Your task to perform on an android device: toggle airplane mode Image 0: 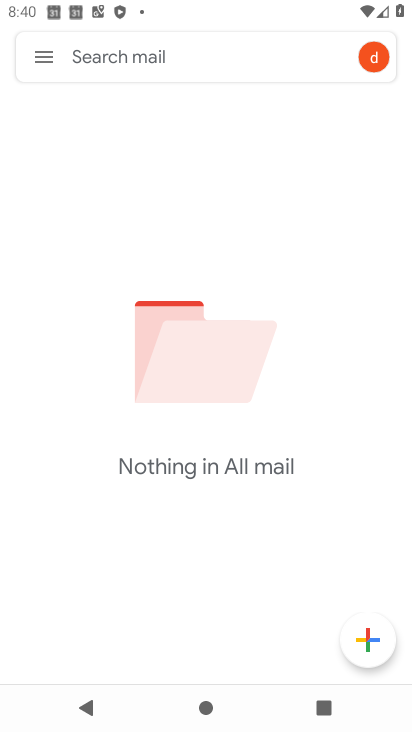
Step 0: press home button
Your task to perform on an android device: toggle airplane mode Image 1: 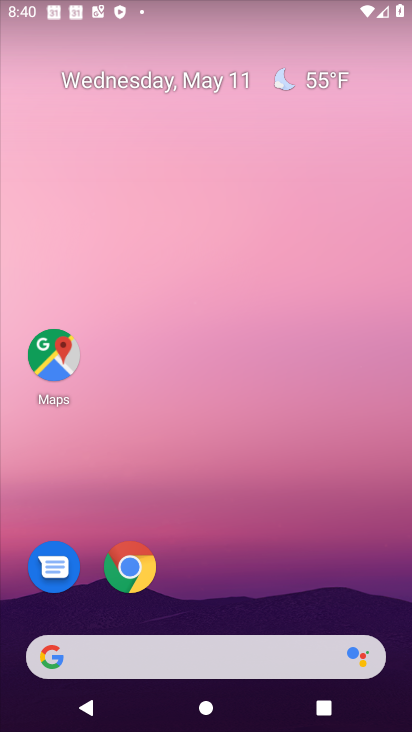
Step 1: drag from (230, 596) to (275, 117)
Your task to perform on an android device: toggle airplane mode Image 2: 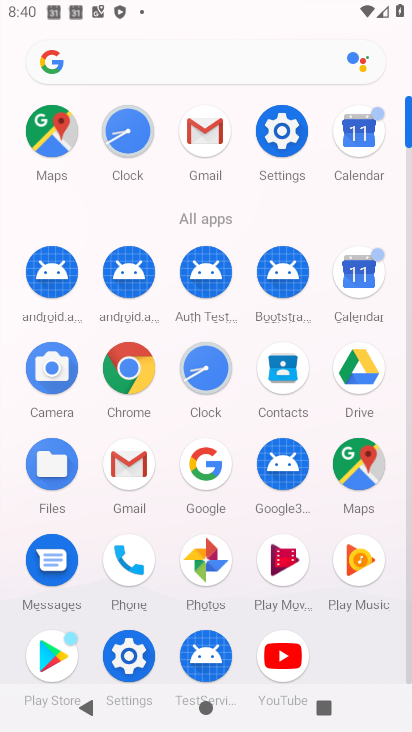
Step 2: click (291, 154)
Your task to perform on an android device: toggle airplane mode Image 3: 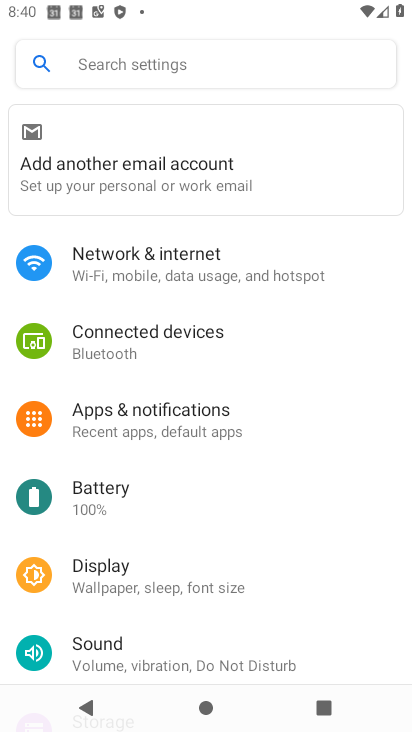
Step 3: click (177, 269)
Your task to perform on an android device: toggle airplane mode Image 4: 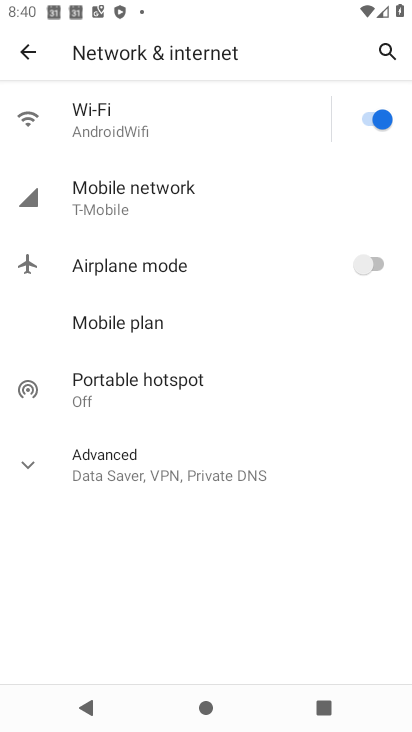
Step 4: click (382, 260)
Your task to perform on an android device: toggle airplane mode Image 5: 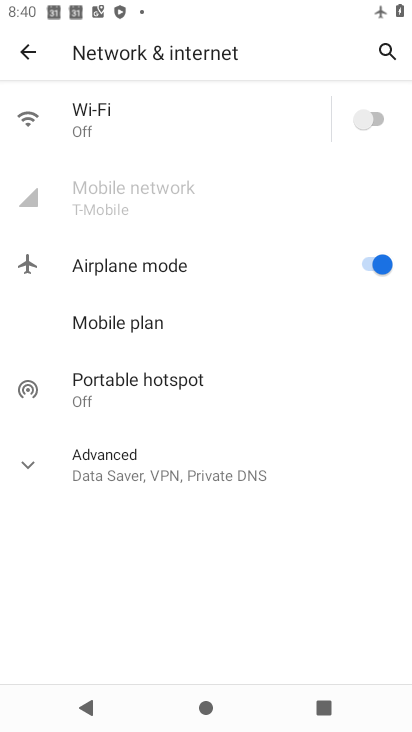
Step 5: task complete